Your task to perform on an android device: Open Google Maps Image 0: 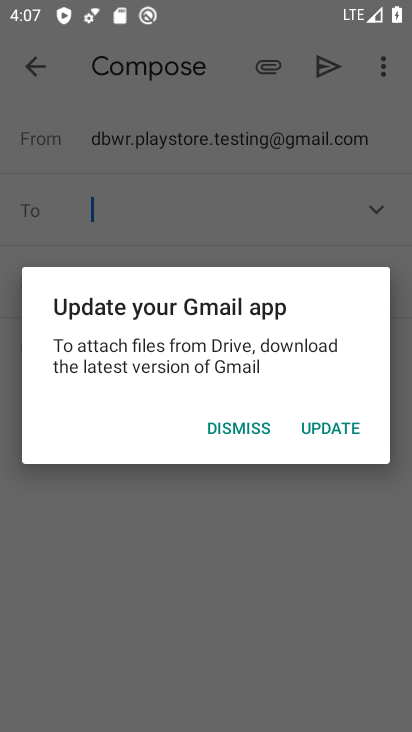
Step 0: press home button
Your task to perform on an android device: Open Google Maps Image 1: 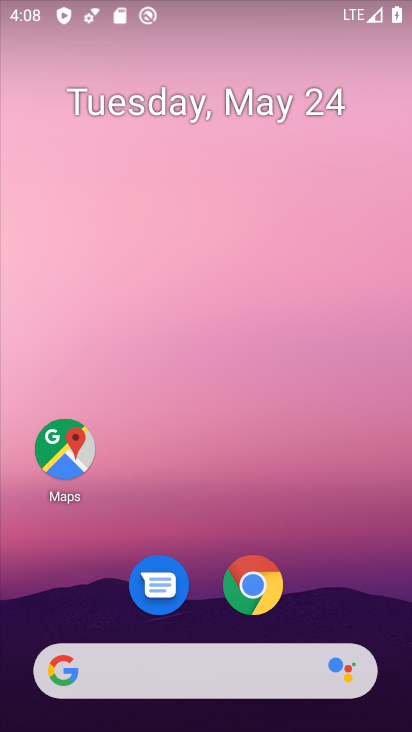
Step 1: click (59, 453)
Your task to perform on an android device: Open Google Maps Image 2: 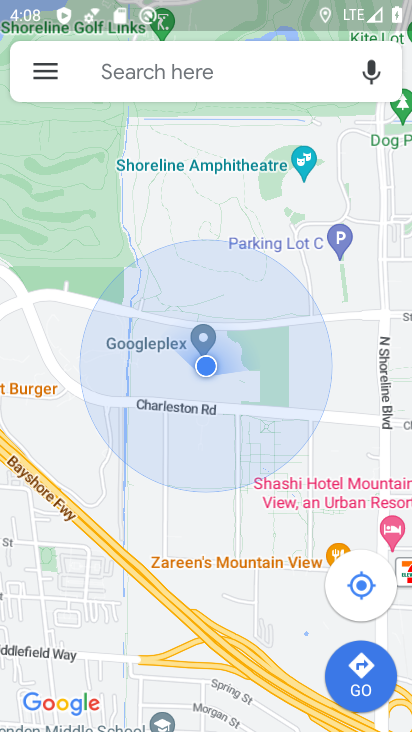
Step 2: task complete